Your task to perform on an android device: change the clock display to analog Image 0: 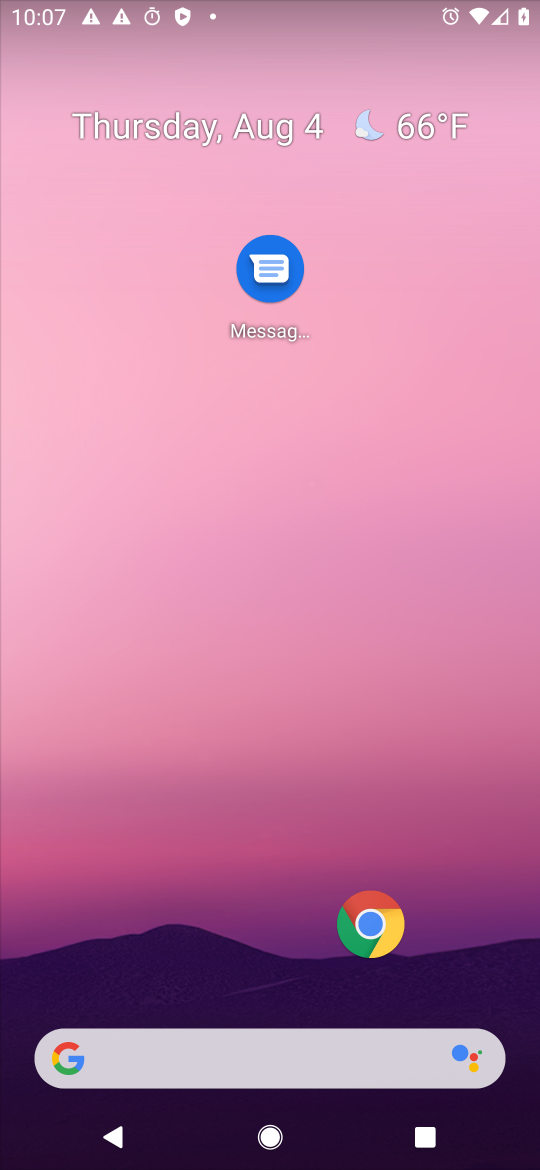
Step 0: click (256, 507)
Your task to perform on an android device: change the clock display to analog Image 1: 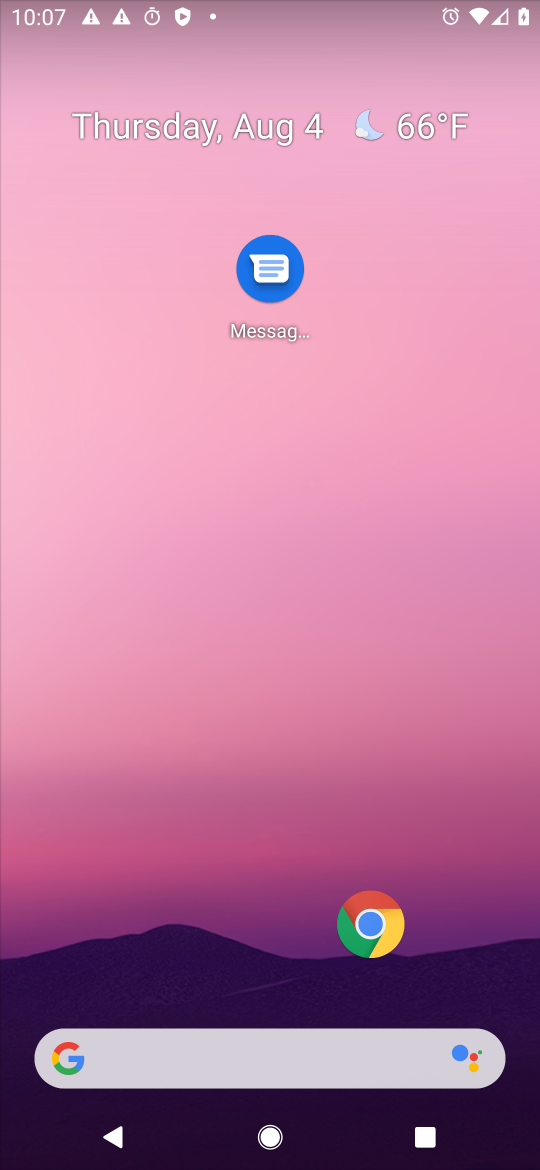
Step 1: drag from (273, 876) to (301, 19)
Your task to perform on an android device: change the clock display to analog Image 2: 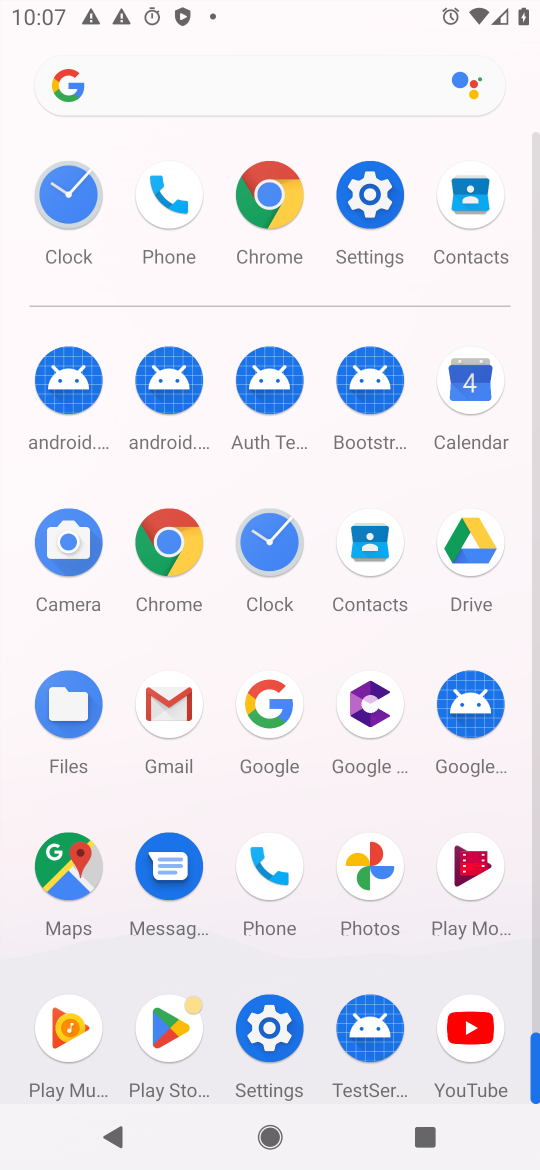
Step 2: click (272, 532)
Your task to perform on an android device: change the clock display to analog Image 3: 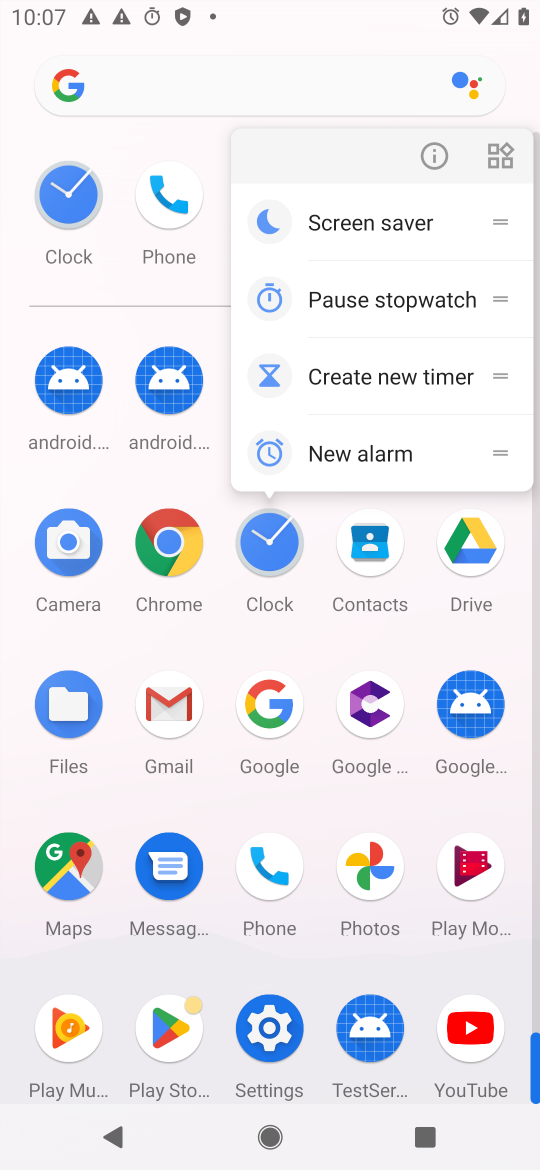
Step 3: click (438, 142)
Your task to perform on an android device: change the clock display to analog Image 4: 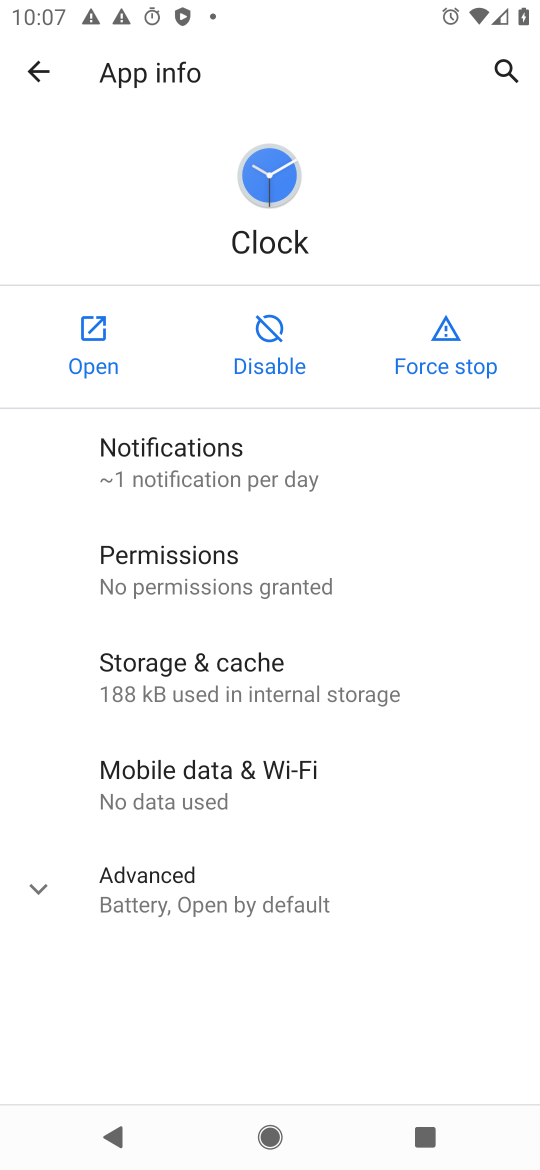
Step 4: click (94, 314)
Your task to perform on an android device: change the clock display to analog Image 5: 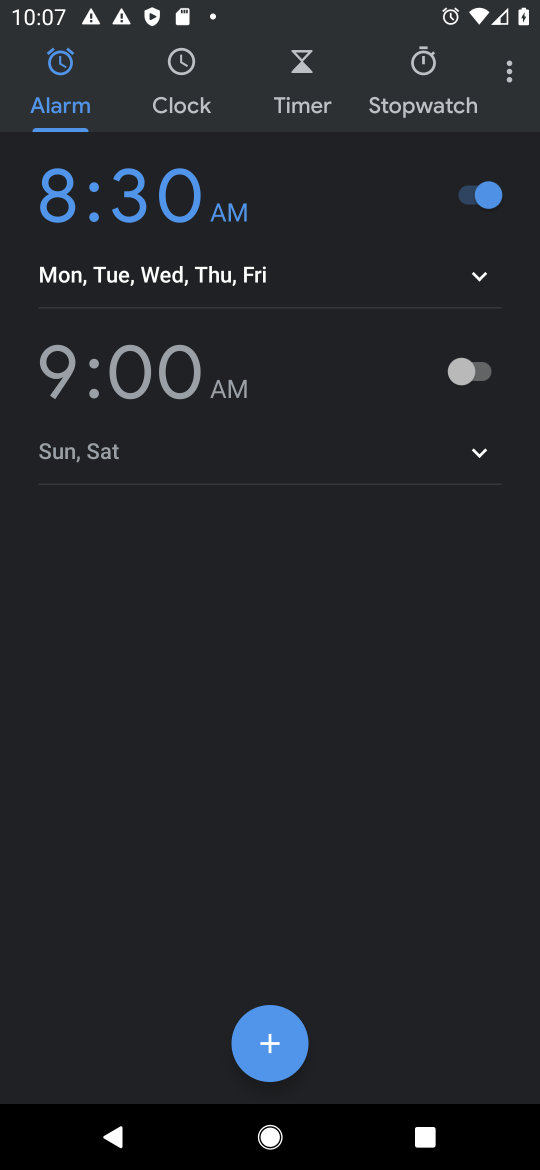
Step 5: click (506, 74)
Your task to perform on an android device: change the clock display to analog Image 6: 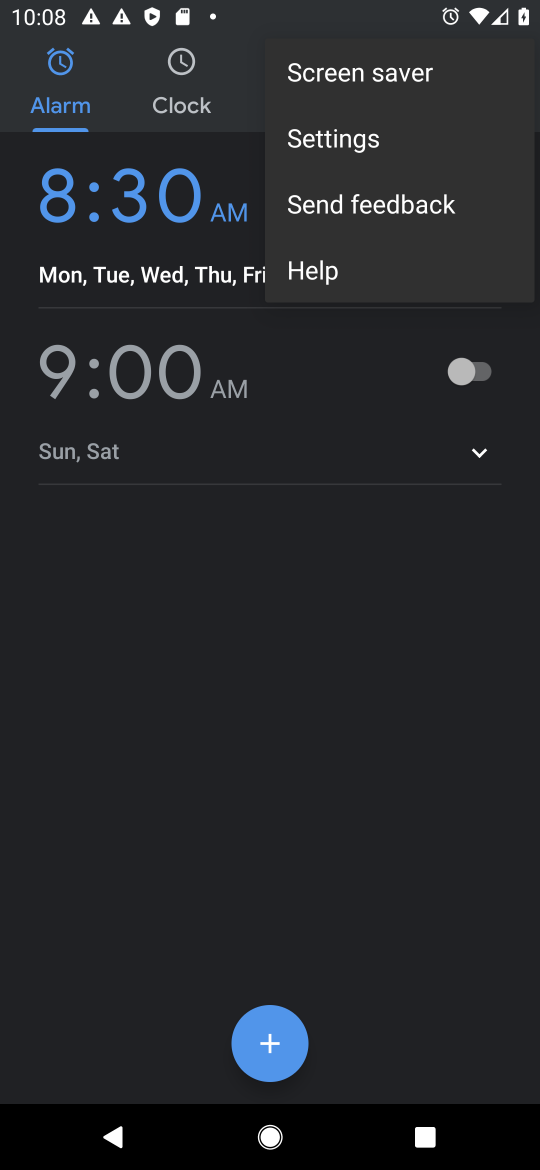
Step 6: click (331, 147)
Your task to perform on an android device: change the clock display to analog Image 7: 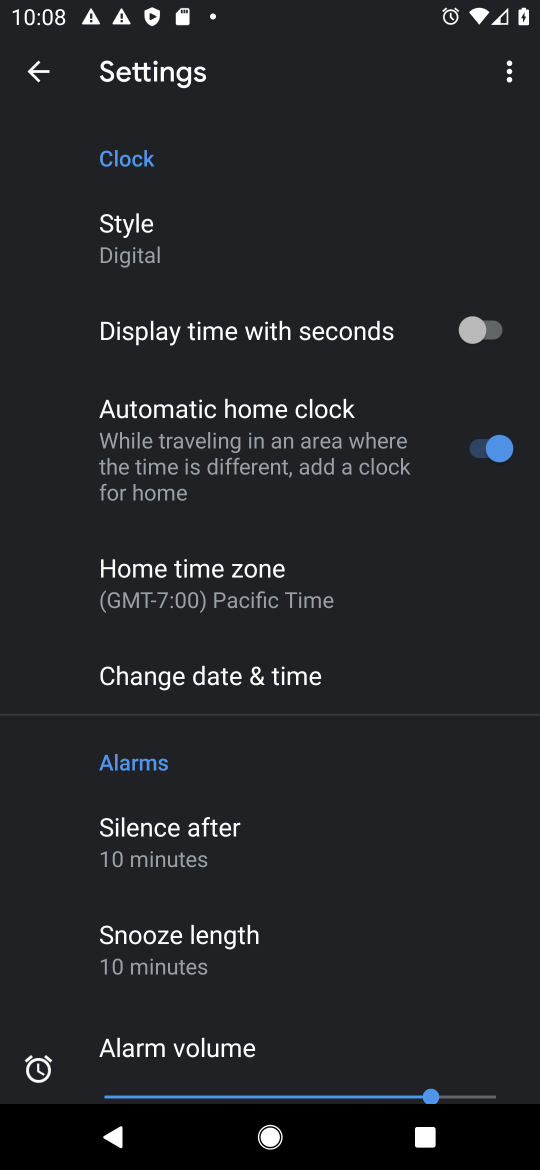
Step 7: click (195, 252)
Your task to perform on an android device: change the clock display to analog Image 8: 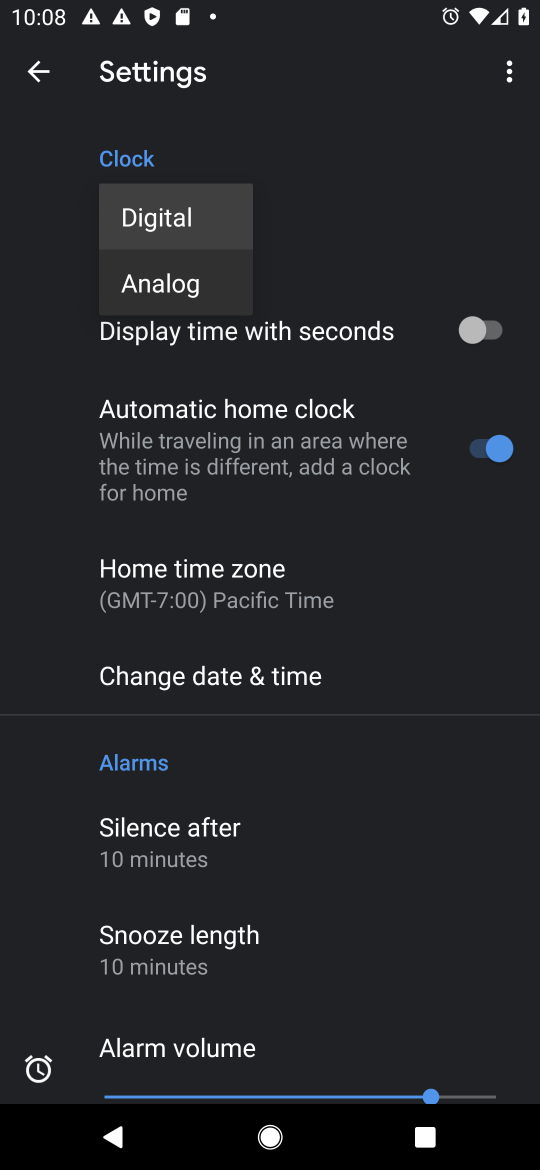
Step 8: click (180, 297)
Your task to perform on an android device: change the clock display to analog Image 9: 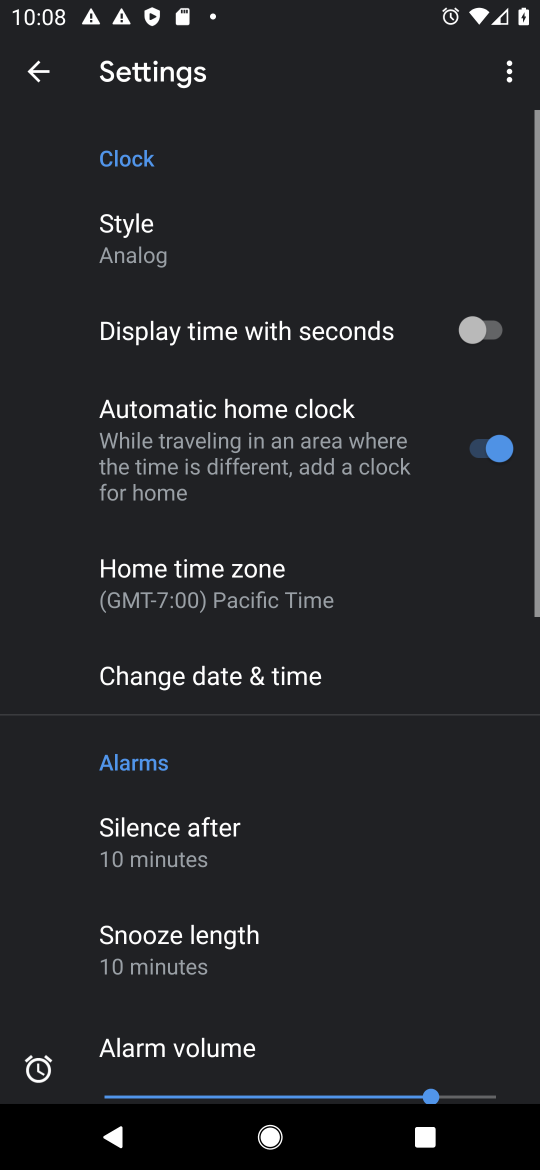
Step 9: task complete